Your task to perform on an android device: turn smart compose on in the gmail app Image 0: 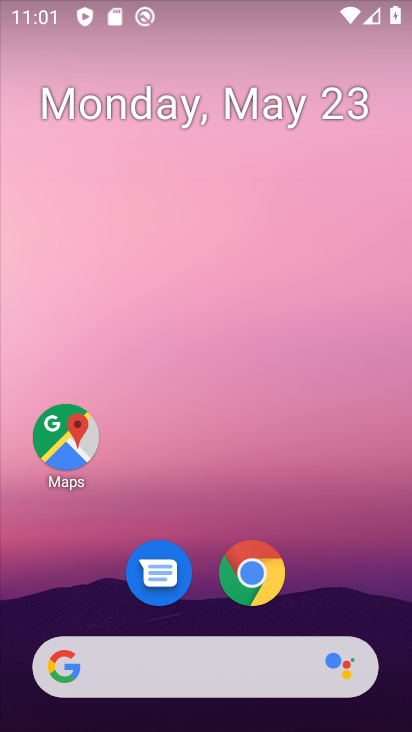
Step 0: drag from (377, 597) to (389, 186)
Your task to perform on an android device: turn smart compose on in the gmail app Image 1: 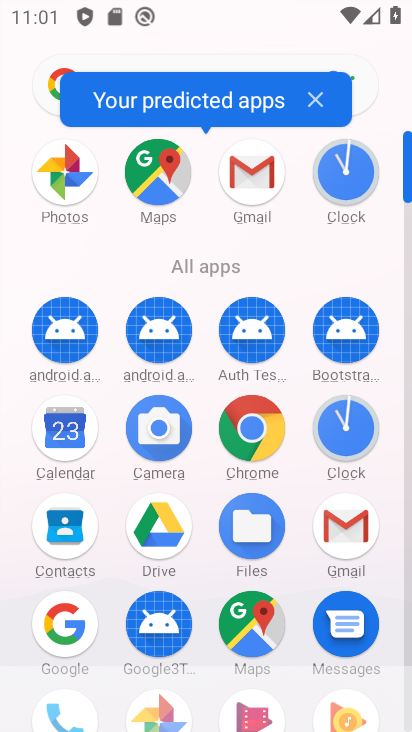
Step 1: click (355, 538)
Your task to perform on an android device: turn smart compose on in the gmail app Image 2: 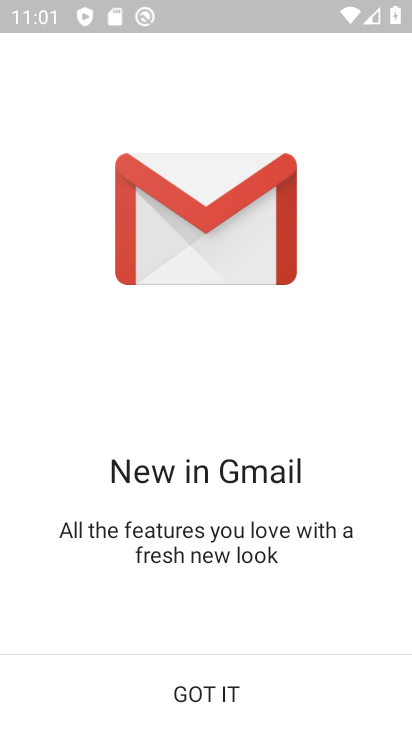
Step 2: click (269, 686)
Your task to perform on an android device: turn smart compose on in the gmail app Image 3: 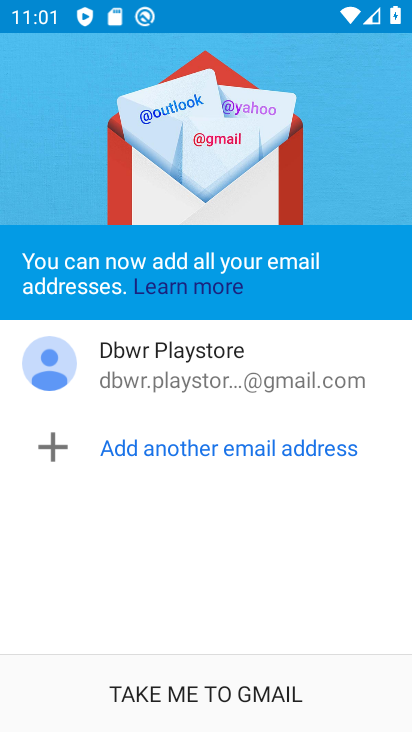
Step 3: click (269, 686)
Your task to perform on an android device: turn smart compose on in the gmail app Image 4: 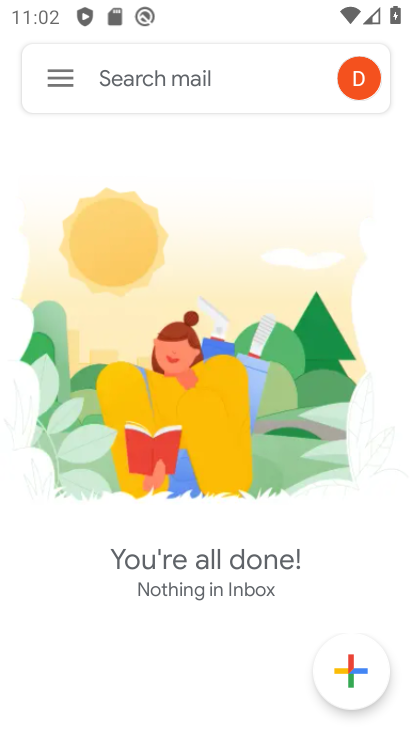
Step 4: click (63, 81)
Your task to perform on an android device: turn smart compose on in the gmail app Image 5: 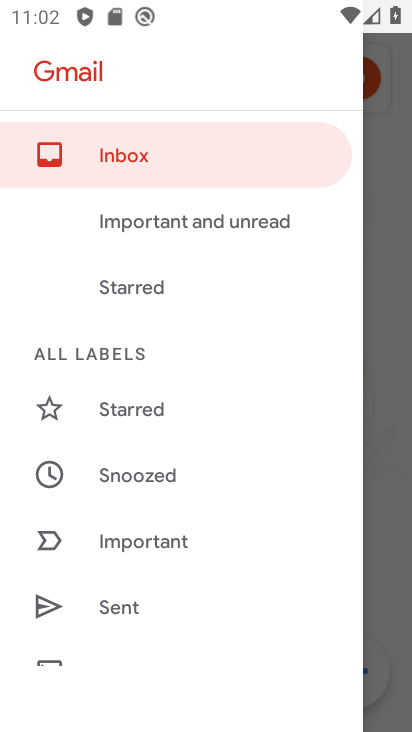
Step 5: drag from (278, 504) to (291, 343)
Your task to perform on an android device: turn smart compose on in the gmail app Image 6: 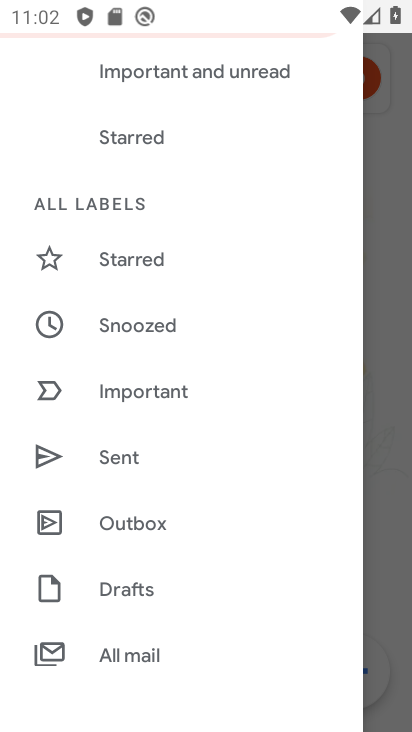
Step 6: drag from (302, 501) to (322, 384)
Your task to perform on an android device: turn smart compose on in the gmail app Image 7: 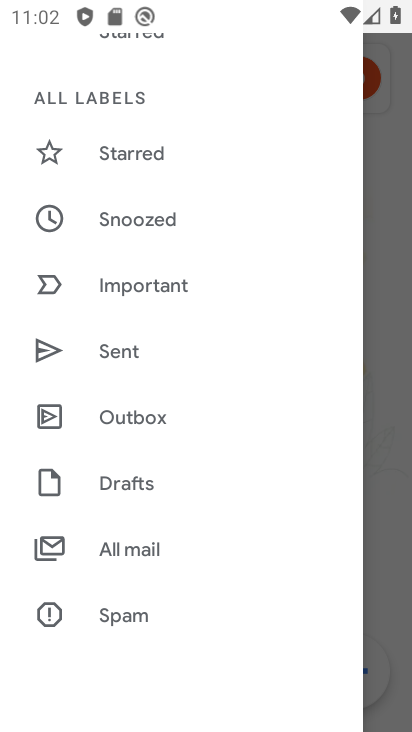
Step 7: drag from (297, 532) to (305, 425)
Your task to perform on an android device: turn smart compose on in the gmail app Image 8: 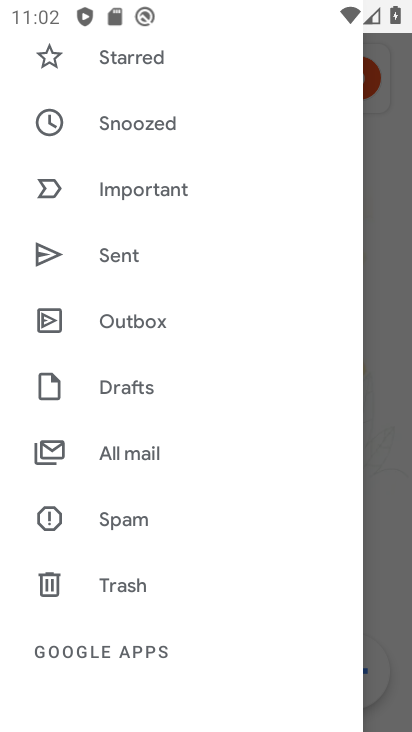
Step 8: drag from (293, 544) to (289, 410)
Your task to perform on an android device: turn smart compose on in the gmail app Image 9: 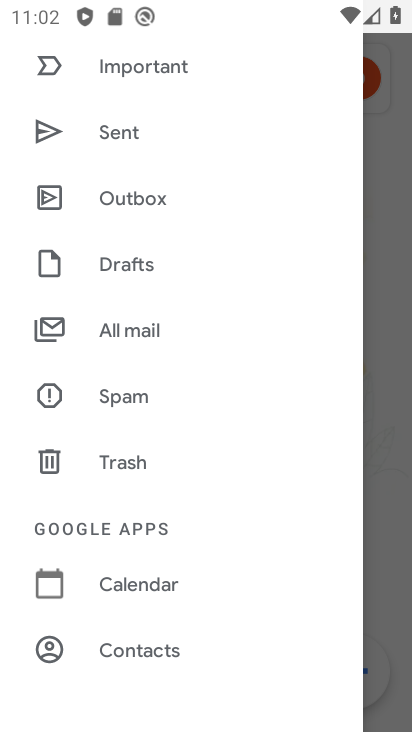
Step 9: drag from (276, 546) to (255, 434)
Your task to perform on an android device: turn smart compose on in the gmail app Image 10: 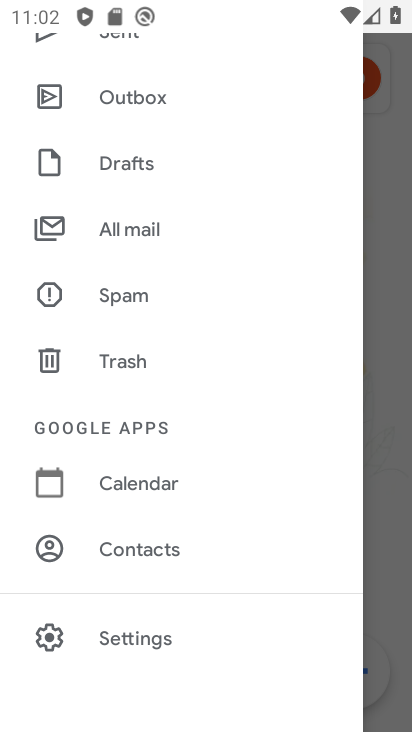
Step 10: drag from (277, 564) to (264, 455)
Your task to perform on an android device: turn smart compose on in the gmail app Image 11: 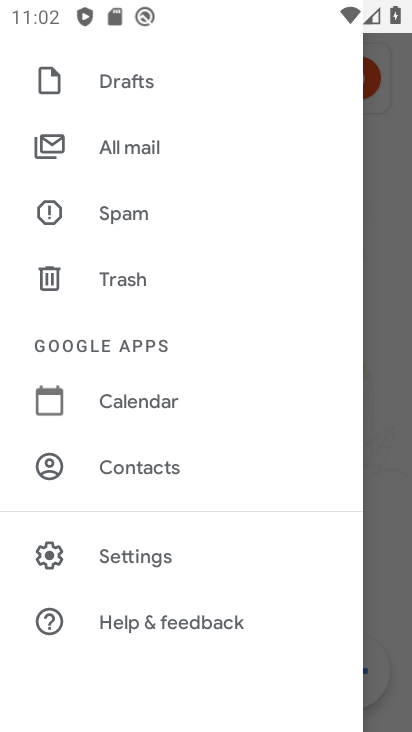
Step 11: click (197, 564)
Your task to perform on an android device: turn smart compose on in the gmail app Image 12: 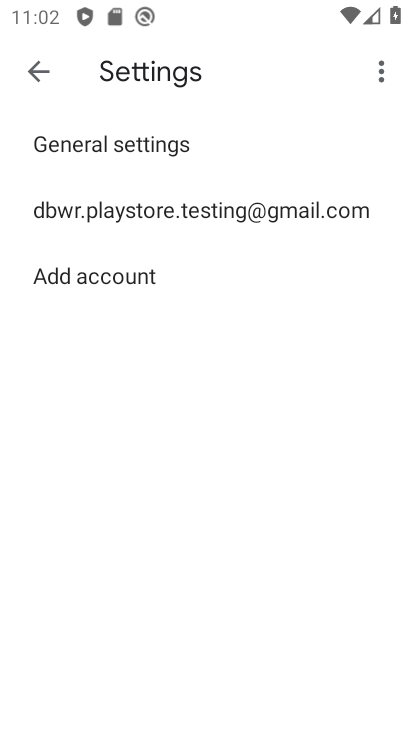
Step 12: click (303, 214)
Your task to perform on an android device: turn smart compose on in the gmail app Image 13: 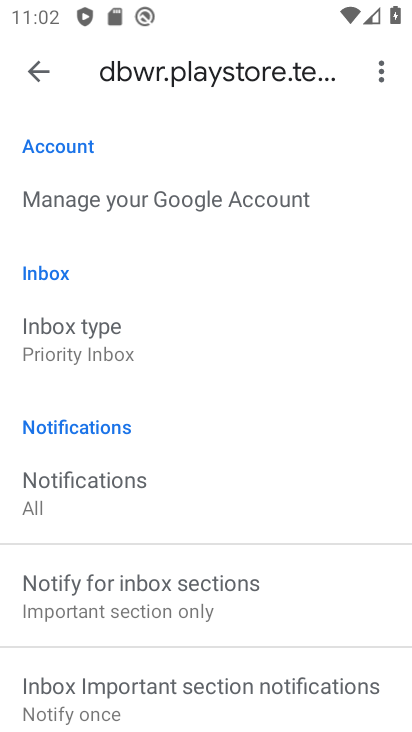
Step 13: task complete